Your task to perform on an android device: What's the weather? Image 0: 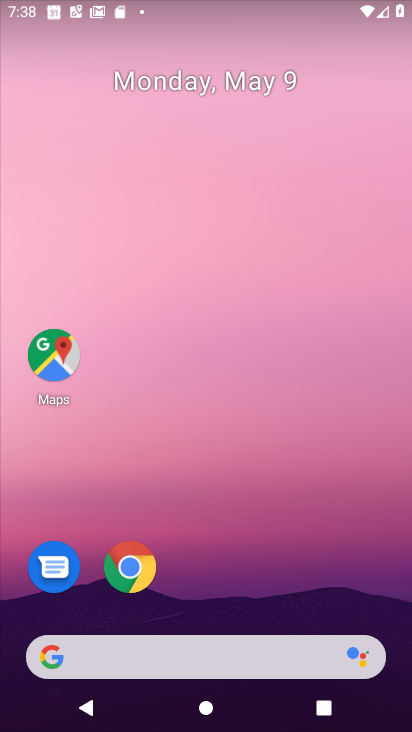
Step 0: drag from (208, 601) to (324, 128)
Your task to perform on an android device: What's the weather? Image 1: 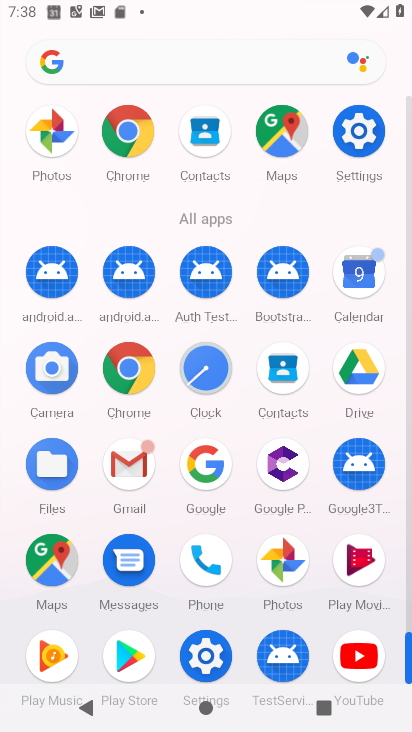
Step 1: drag from (247, 621) to (264, 271)
Your task to perform on an android device: What's the weather? Image 2: 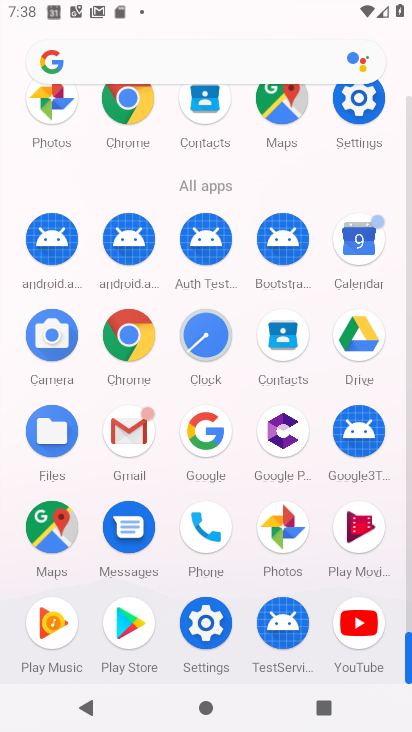
Step 2: click (161, 53)
Your task to perform on an android device: What's the weather? Image 3: 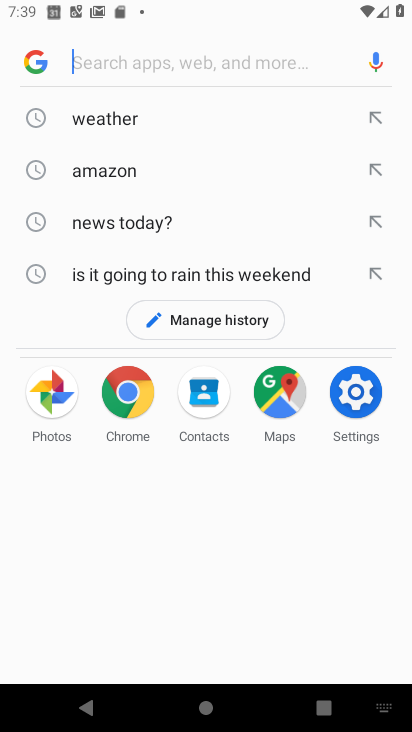
Step 3: click (123, 111)
Your task to perform on an android device: What's the weather? Image 4: 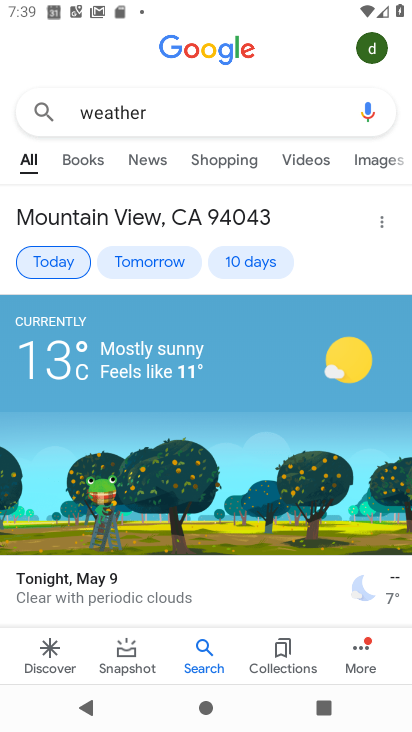
Step 4: task complete